Your task to perform on an android device: Open my contact list Image 0: 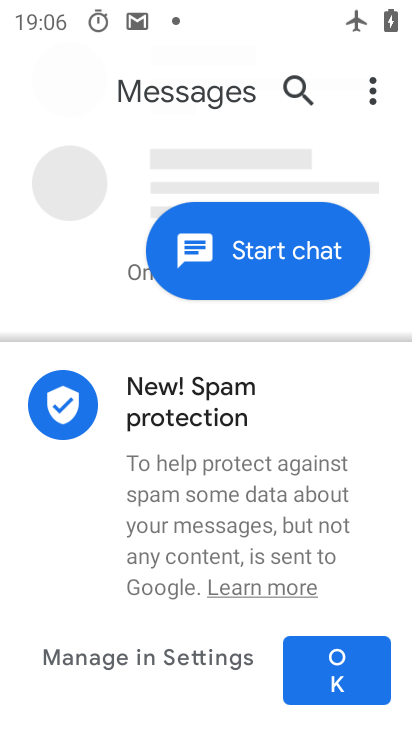
Step 0: press home button
Your task to perform on an android device: Open my contact list Image 1: 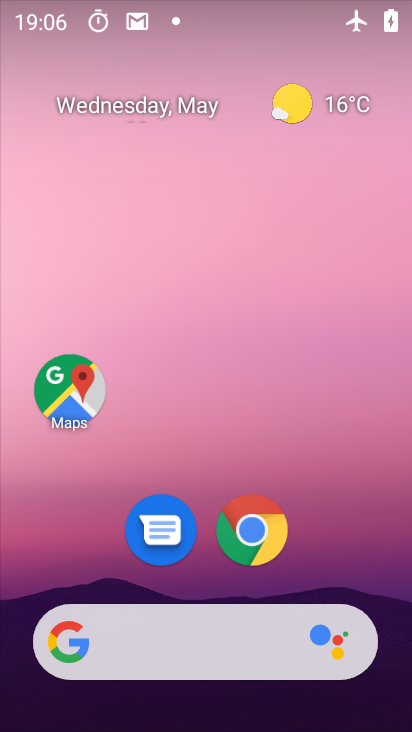
Step 1: drag from (188, 593) to (262, 226)
Your task to perform on an android device: Open my contact list Image 2: 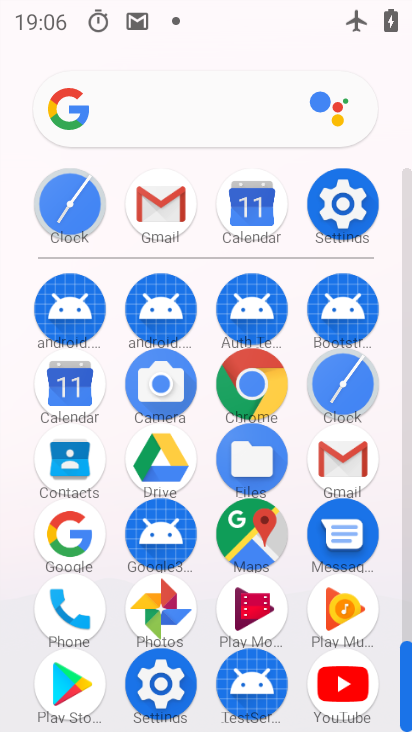
Step 2: click (70, 468)
Your task to perform on an android device: Open my contact list Image 3: 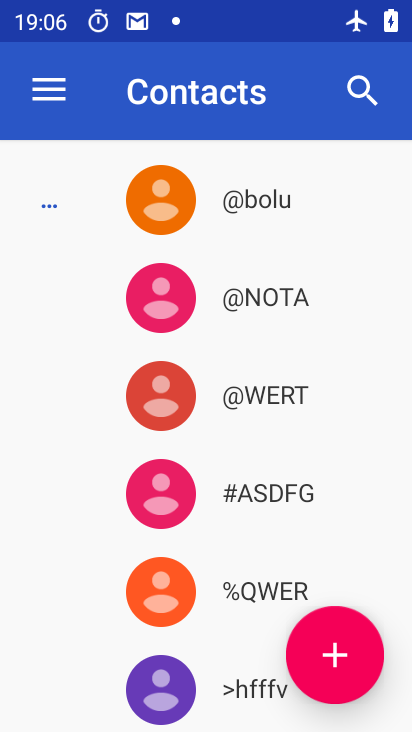
Step 3: task complete